Your task to perform on an android device: see sites visited before in the chrome app Image 0: 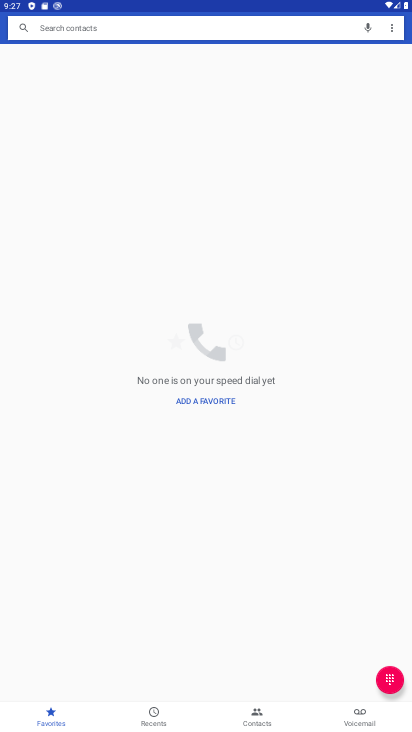
Step 0: press home button
Your task to perform on an android device: see sites visited before in the chrome app Image 1: 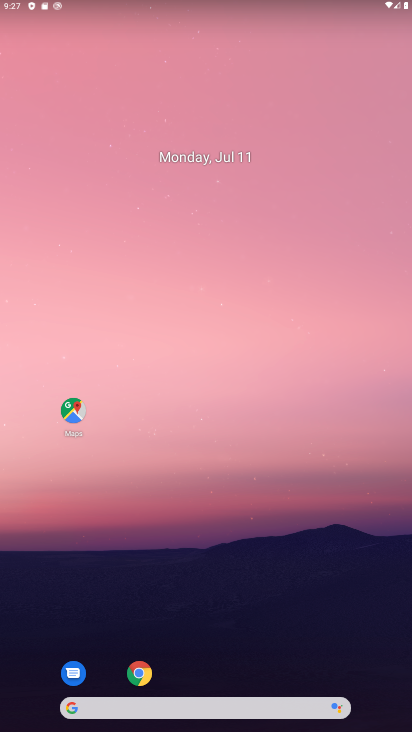
Step 1: click (143, 670)
Your task to perform on an android device: see sites visited before in the chrome app Image 2: 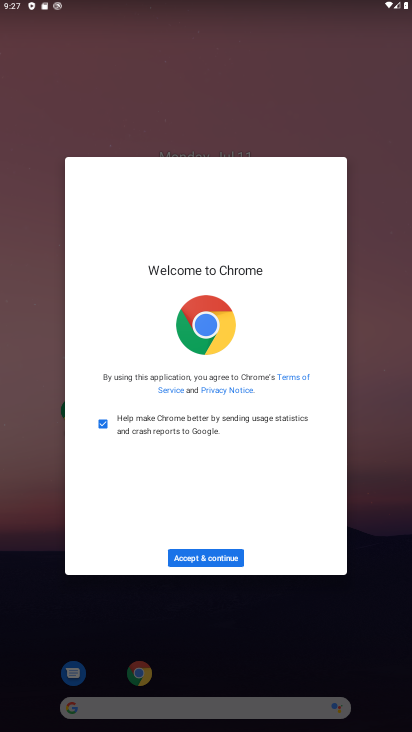
Step 2: click (206, 559)
Your task to perform on an android device: see sites visited before in the chrome app Image 3: 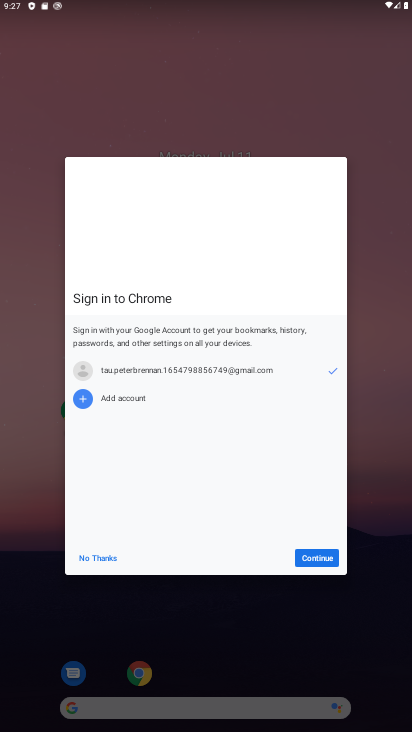
Step 3: click (305, 563)
Your task to perform on an android device: see sites visited before in the chrome app Image 4: 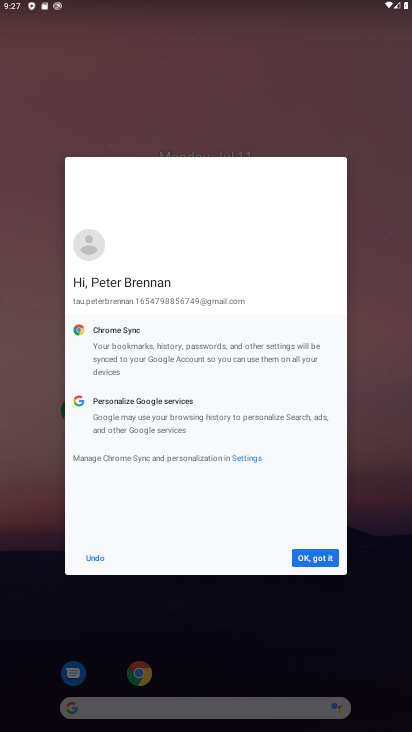
Step 4: click (305, 563)
Your task to perform on an android device: see sites visited before in the chrome app Image 5: 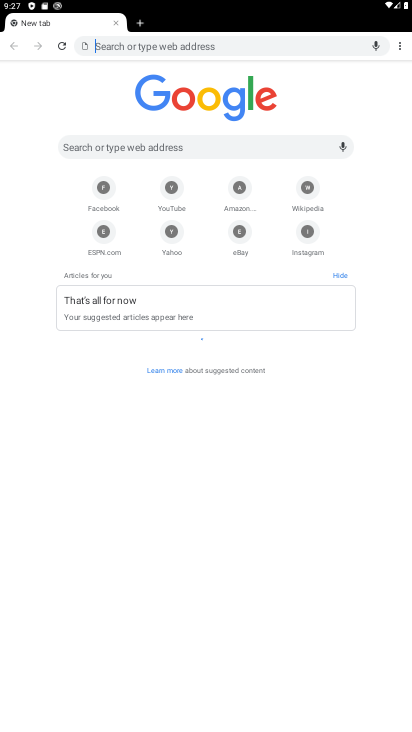
Step 5: click (398, 42)
Your task to perform on an android device: see sites visited before in the chrome app Image 6: 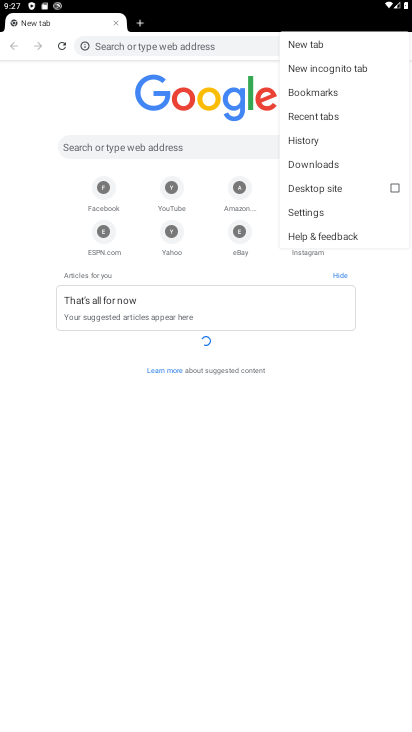
Step 6: click (316, 117)
Your task to perform on an android device: see sites visited before in the chrome app Image 7: 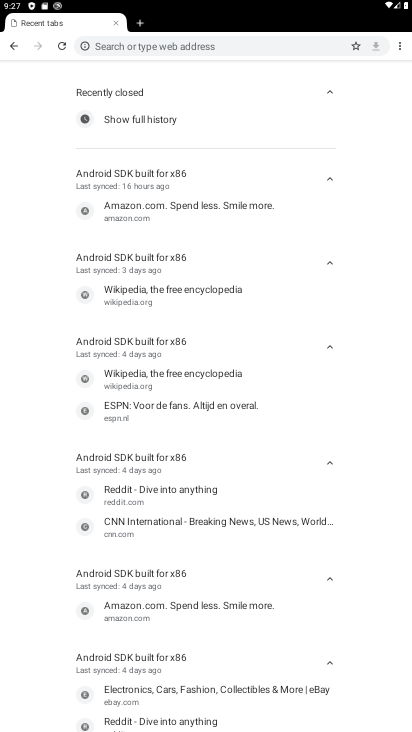
Step 7: task complete